Your task to perform on an android device: Go to eBay Image 0: 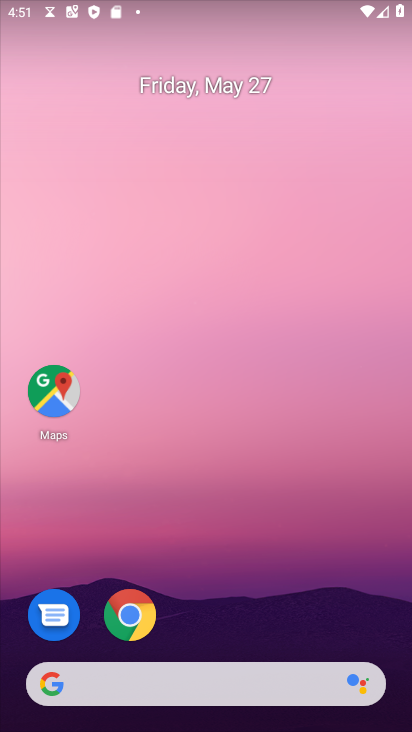
Step 0: click (130, 625)
Your task to perform on an android device: Go to eBay Image 1: 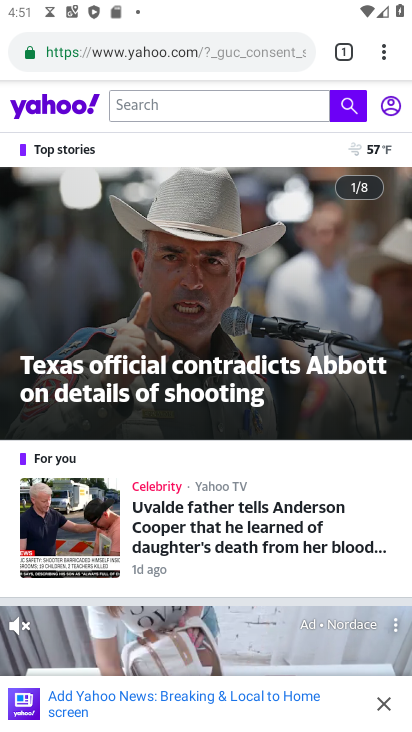
Step 1: click (344, 49)
Your task to perform on an android device: Go to eBay Image 2: 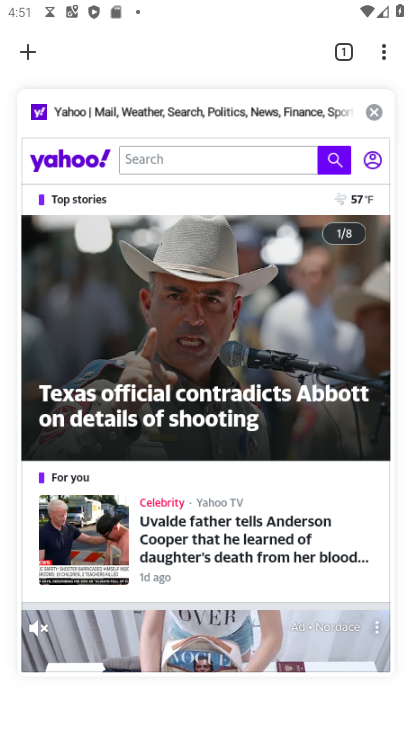
Step 2: click (26, 48)
Your task to perform on an android device: Go to eBay Image 3: 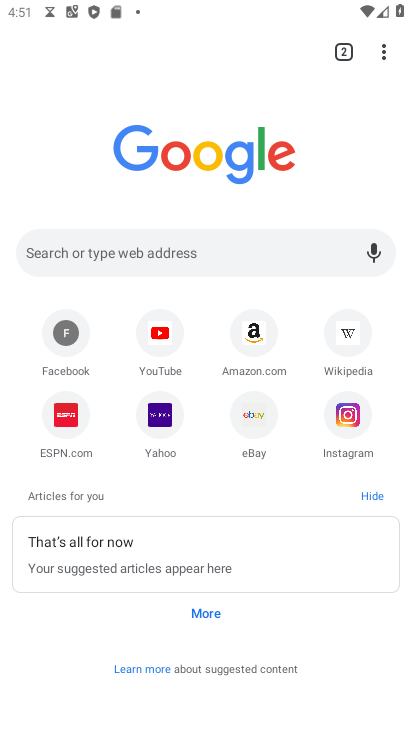
Step 3: click (250, 415)
Your task to perform on an android device: Go to eBay Image 4: 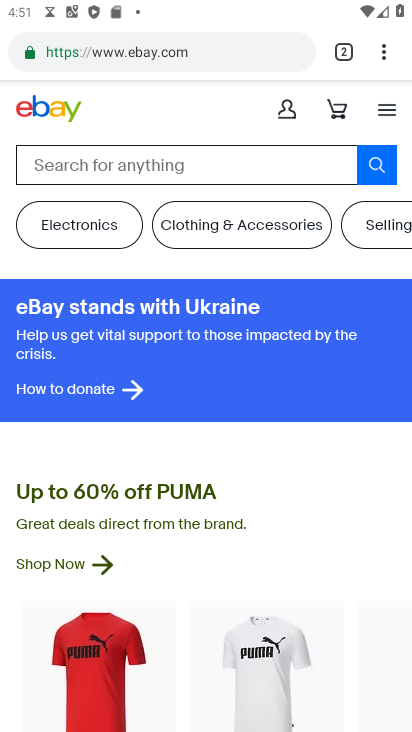
Step 4: task complete